Your task to perform on an android device: turn on notifications settings in the gmail app Image 0: 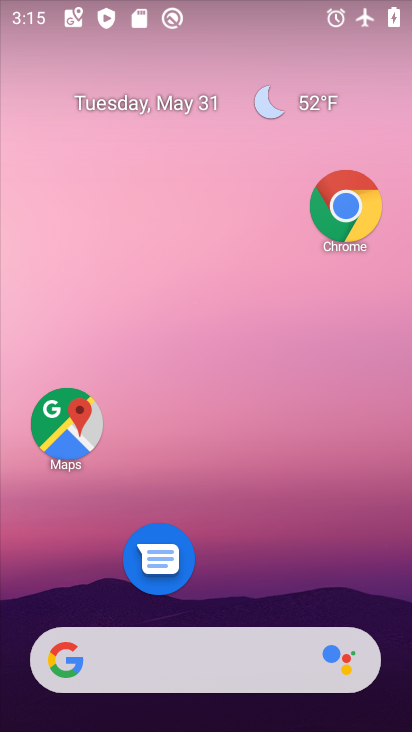
Step 0: drag from (260, 576) to (257, 156)
Your task to perform on an android device: turn on notifications settings in the gmail app Image 1: 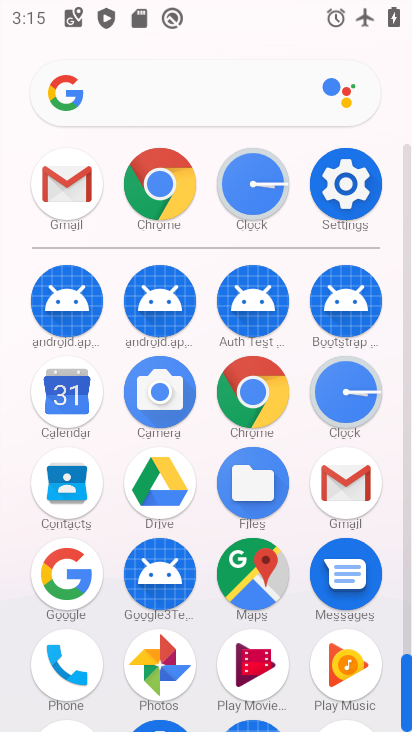
Step 1: click (338, 486)
Your task to perform on an android device: turn on notifications settings in the gmail app Image 2: 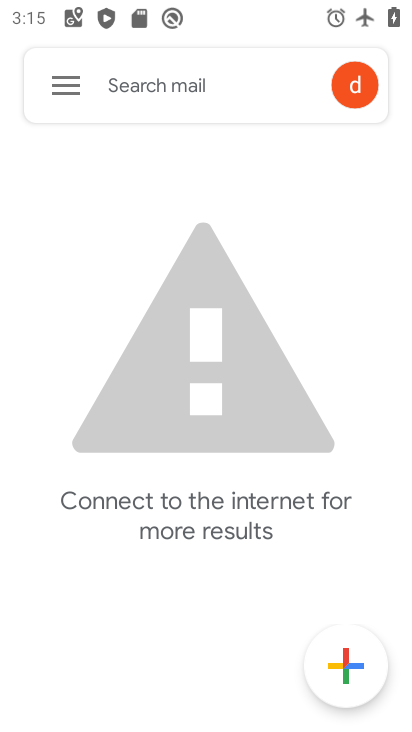
Step 2: click (61, 93)
Your task to perform on an android device: turn on notifications settings in the gmail app Image 3: 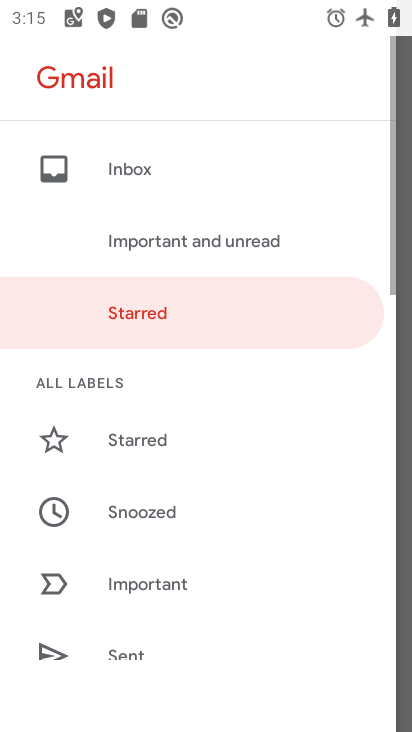
Step 3: drag from (125, 571) to (151, 249)
Your task to perform on an android device: turn on notifications settings in the gmail app Image 4: 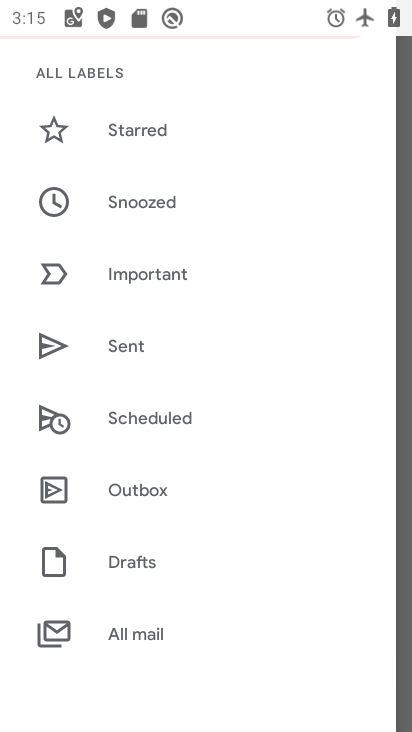
Step 4: drag from (151, 570) to (177, 135)
Your task to perform on an android device: turn on notifications settings in the gmail app Image 5: 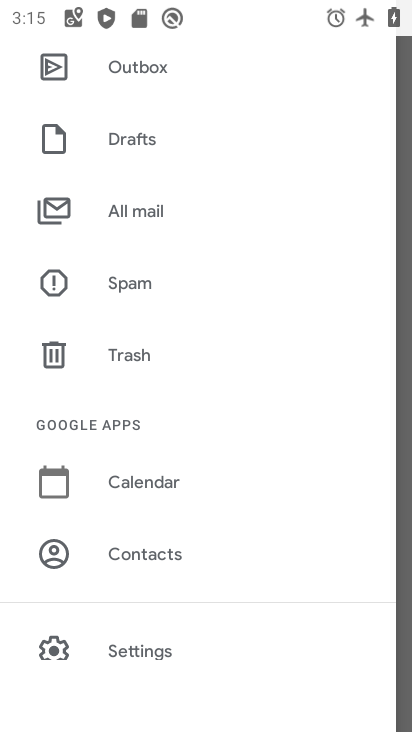
Step 5: click (142, 656)
Your task to perform on an android device: turn on notifications settings in the gmail app Image 6: 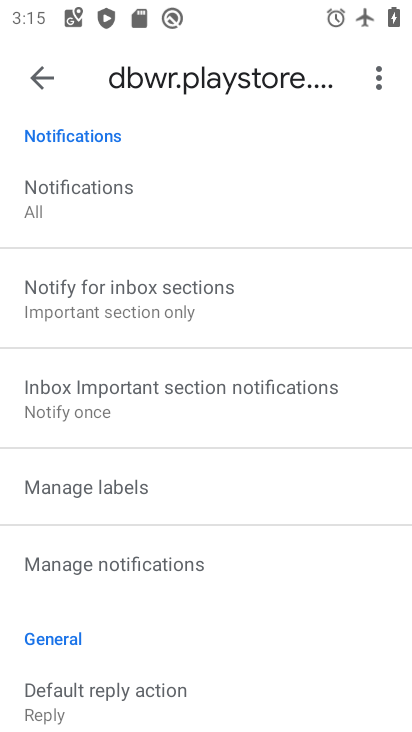
Step 6: click (130, 567)
Your task to perform on an android device: turn on notifications settings in the gmail app Image 7: 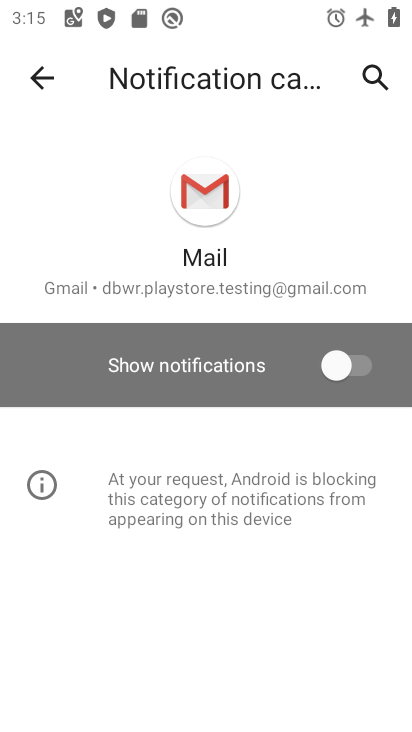
Step 7: click (345, 370)
Your task to perform on an android device: turn on notifications settings in the gmail app Image 8: 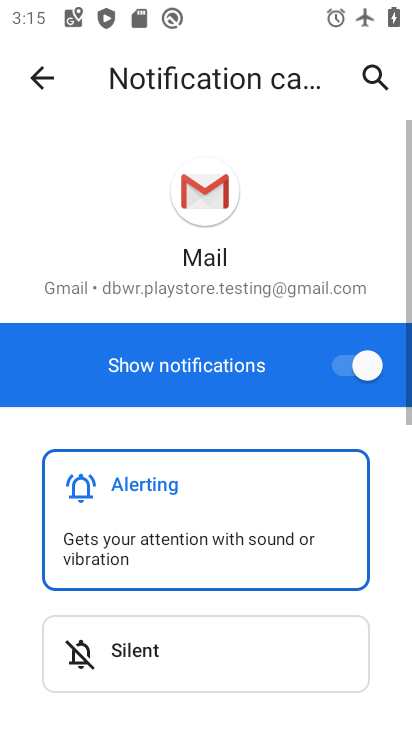
Step 8: task complete